Your task to perform on an android device: toggle wifi Image 0: 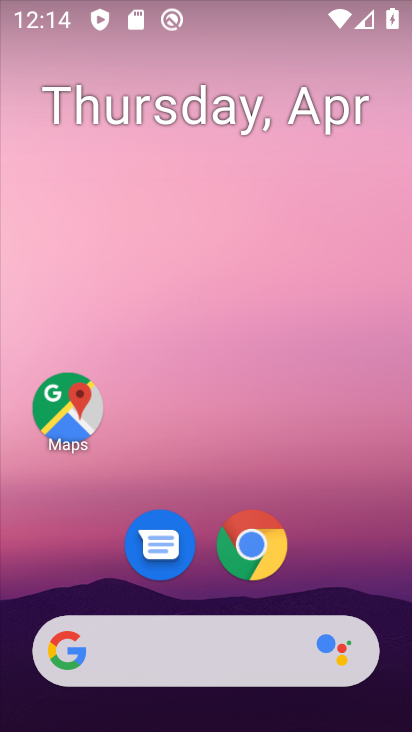
Step 0: drag from (318, 527) to (375, 57)
Your task to perform on an android device: toggle wifi Image 1: 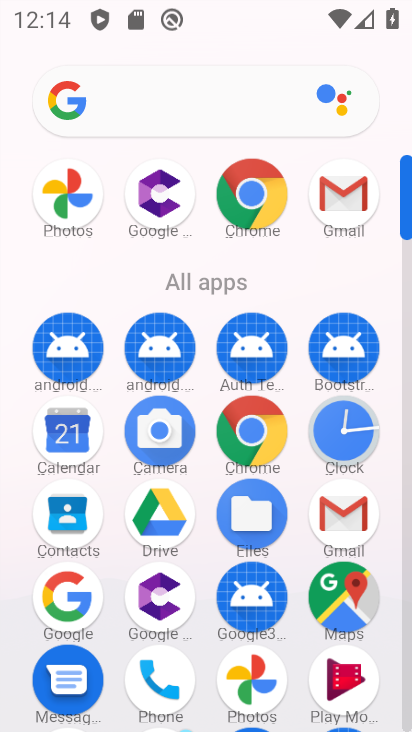
Step 1: drag from (289, 631) to (338, 269)
Your task to perform on an android device: toggle wifi Image 2: 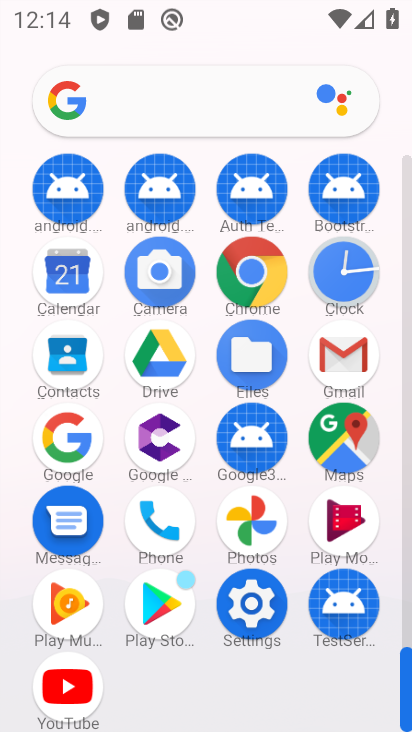
Step 2: click (257, 597)
Your task to perform on an android device: toggle wifi Image 3: 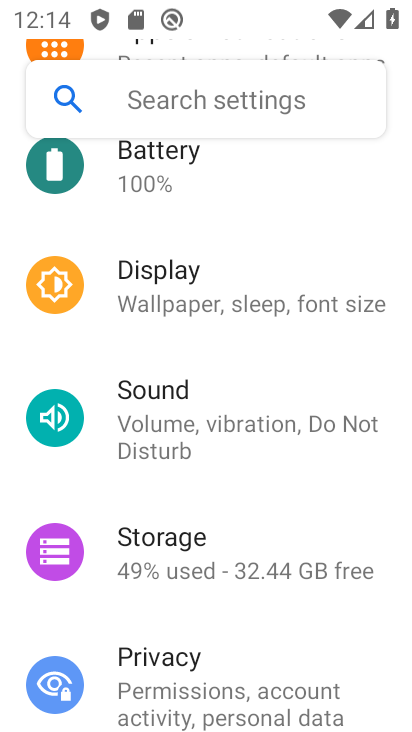
Step 3: drag from (227, 274) to (245, 696)
Your task to perform on an android device: toggle wifi Image 4: 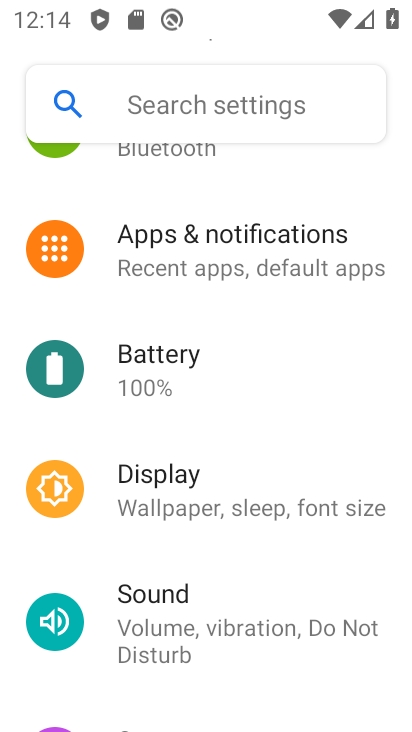
Step 4: drag from (255, 286) to (255, 667)
Your task to perform on an android device: toggle wifi Image 5: 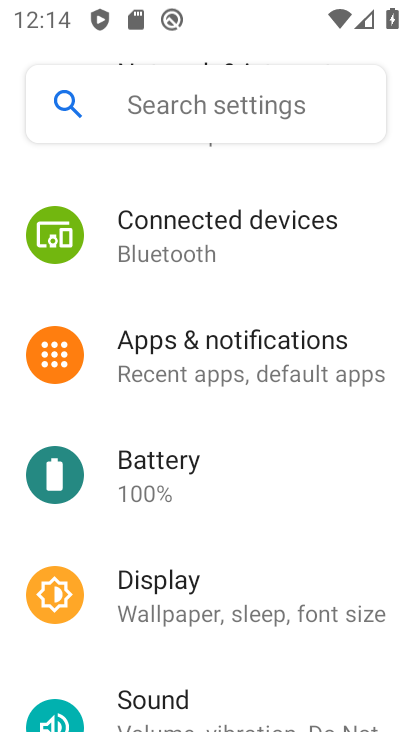
Step 5: drag from (281, 317) to (267, 731)
Your task to perform on an android device: toggle wifi Image 6: 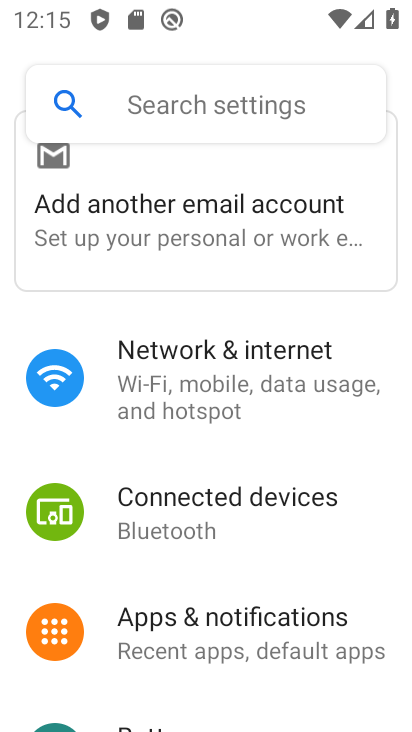
Step 6: click (233, 396)
Your task to perform on an android device: toggle wifi Image 7: 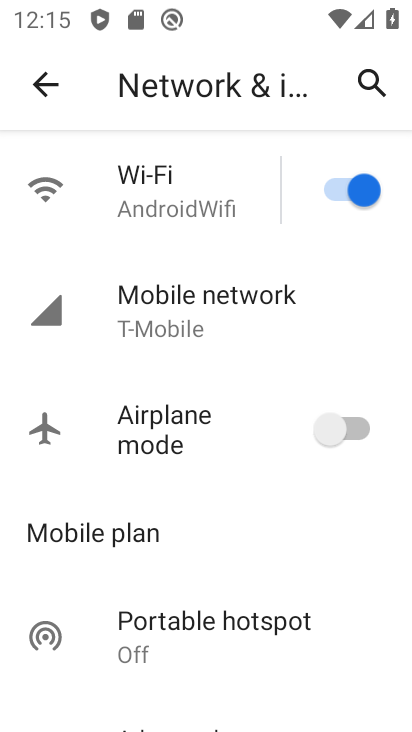
Step 7: click (323, 171)
Your task to perform on an android device: toggle wifi Image 8: 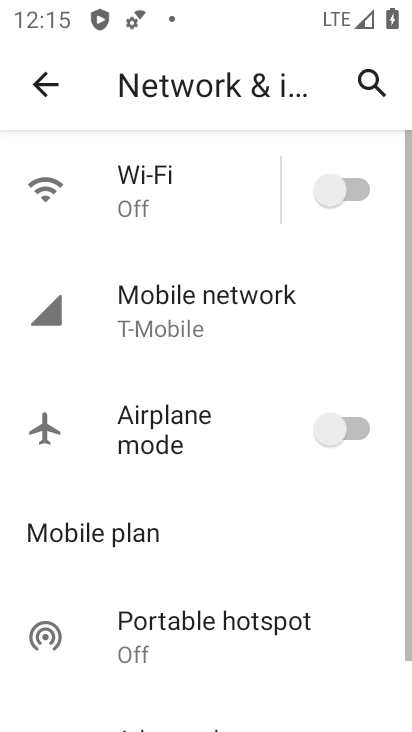
Step 8: task complete